Your task to perform on an android device: Go to accessibility settings Image 0: 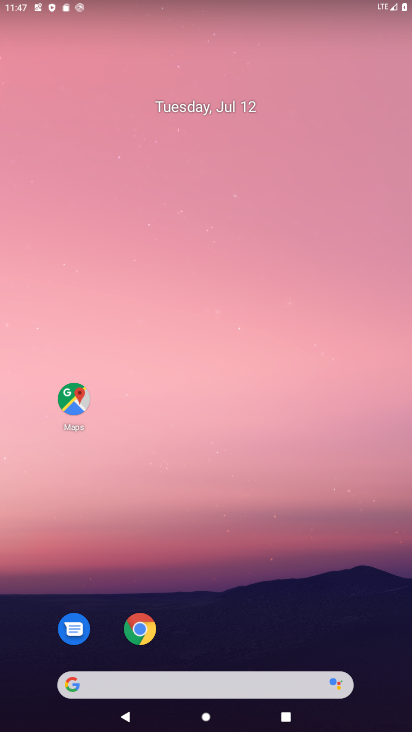
Step 0: press home button
Your task to perform on an android device: Go to accessibility settings Image 1: 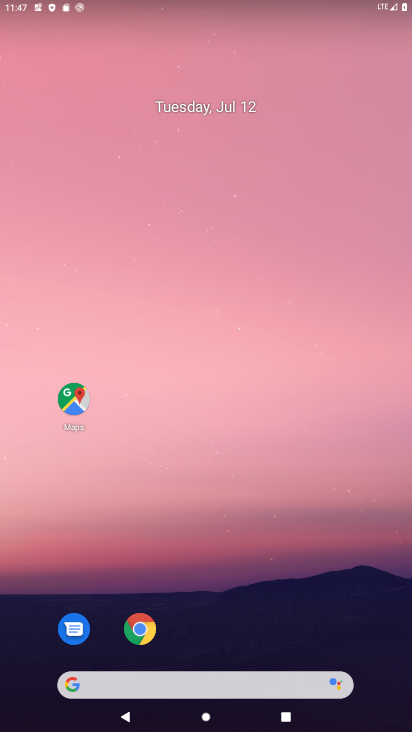
Step 1: drag from (218, 654) to (257, 102)
Your task to perform on an android device: Go to accessibility settings Image 2: 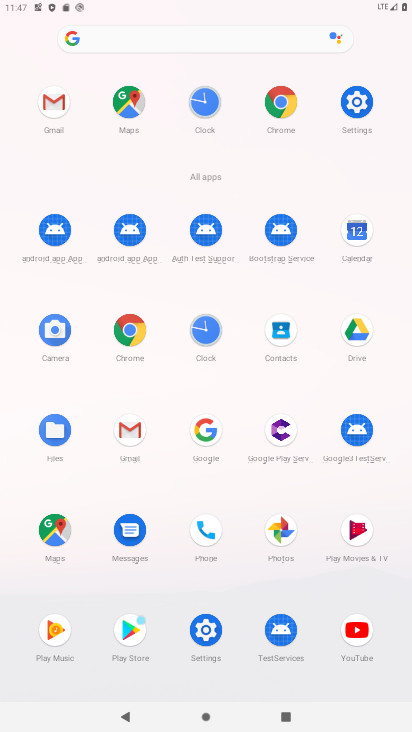
Step 2: click (356, 96)
Your task to perform on an android device: Go to accessibility settings Image 3: 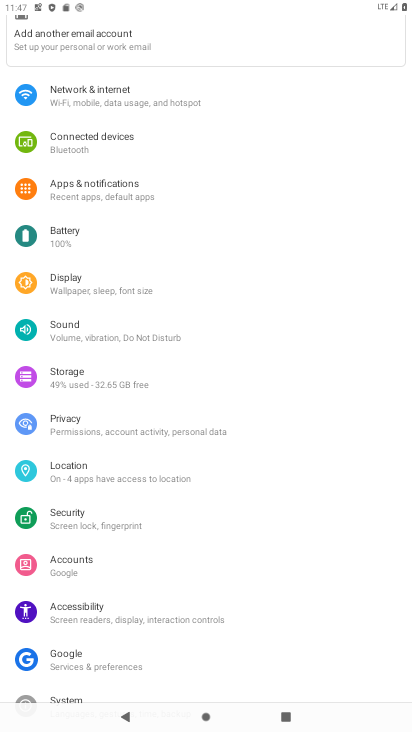
Step 3: click (110, 607)
Your task to perform on an android device: Go to accessibility settings Image 4: 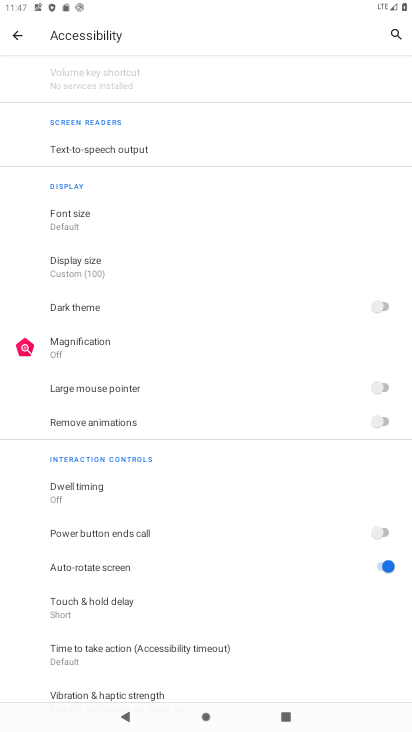
Step 4: task complete